Your task to perform on an android device: turn off notifications settings in the gmail app Image 0: 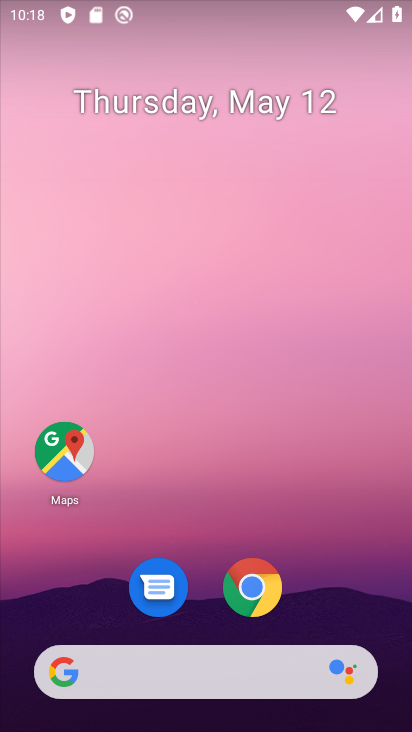
Step 0: drag from (357, 422) to (266, 66)
Your task to perform on an android device: turn off notifications settings in the gmail app Image 1: 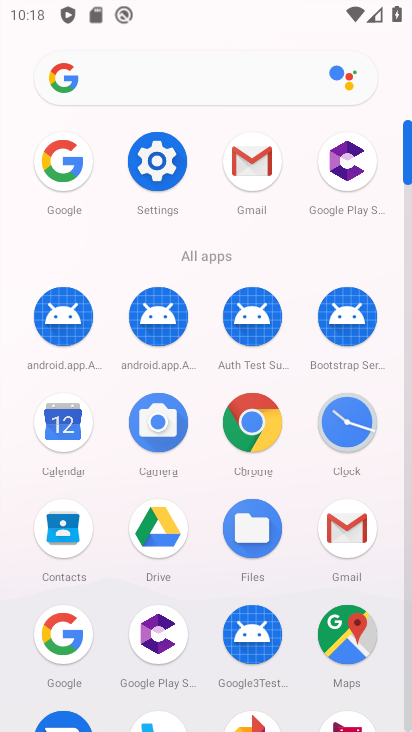
Step 1: click (237, 150)
Your task to perform on an android device: turn off notifications settings in the gmail app Image 2: 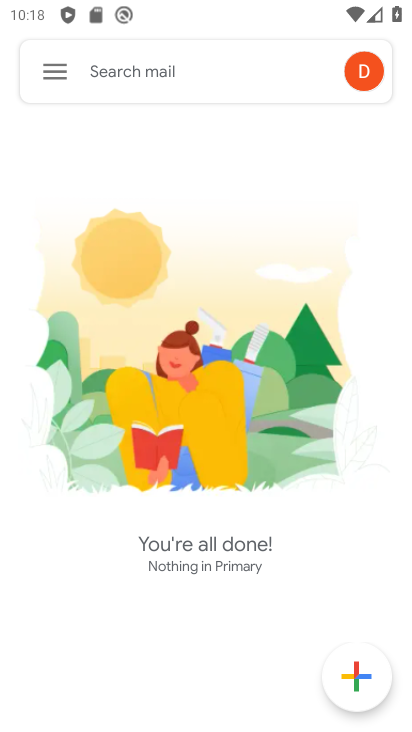
Step 2: click (62, 63)
Your task to perform on an android device: turn off notifications settings in the gmail app Image 3: 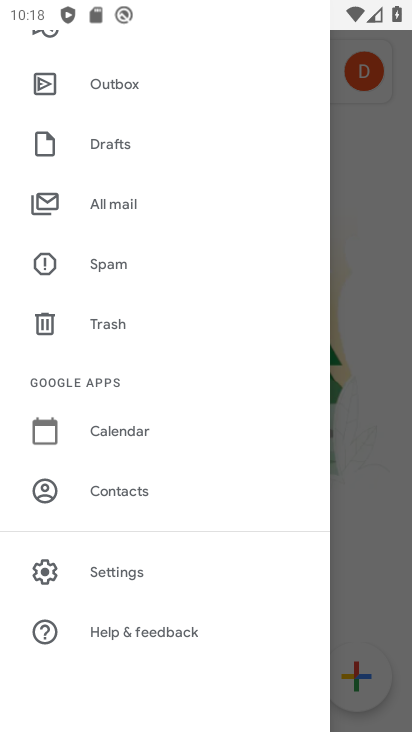
Step 3: click (163, 569)
Your task to perform on an android device: turn off notifications settings in the gmail app Image 4: 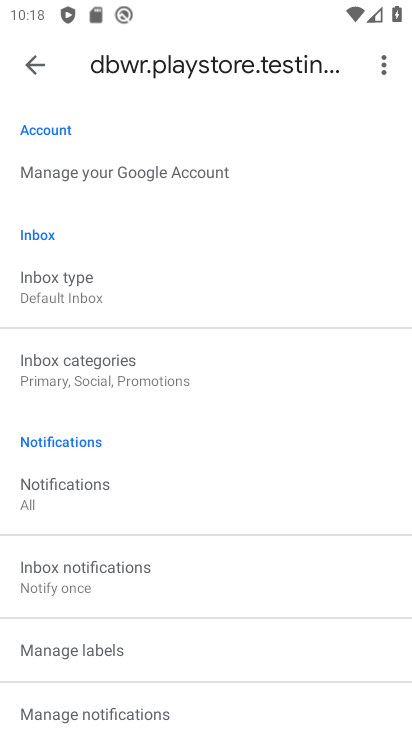
Step 4: click (95, 500)
Your task to perform on an android device: turn off notifications settings in the gmail app Image 5: 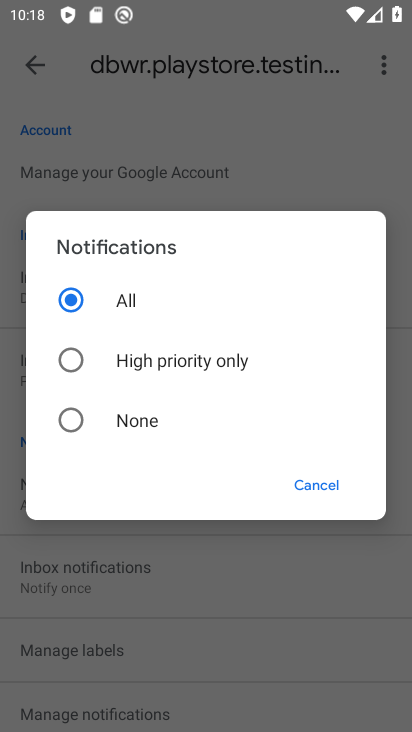
Step 5: click (116, 421)
Your task to perform on an android device: turn off notifications settings in the gmail app Image 6: 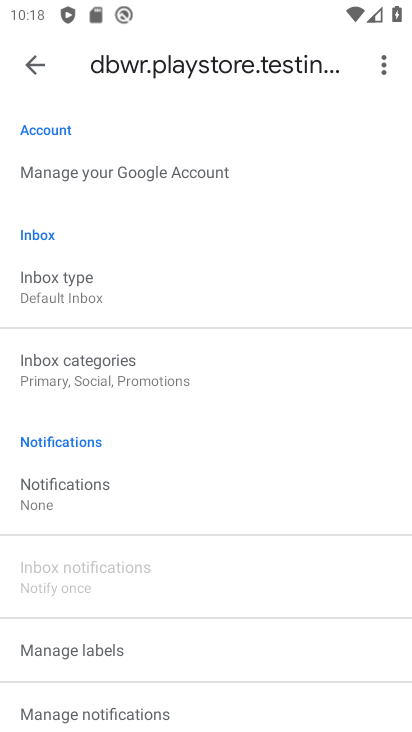
Step 6: task complete